Your task to perform on an android device: Show me productivity apps on the Play Store Image 0: 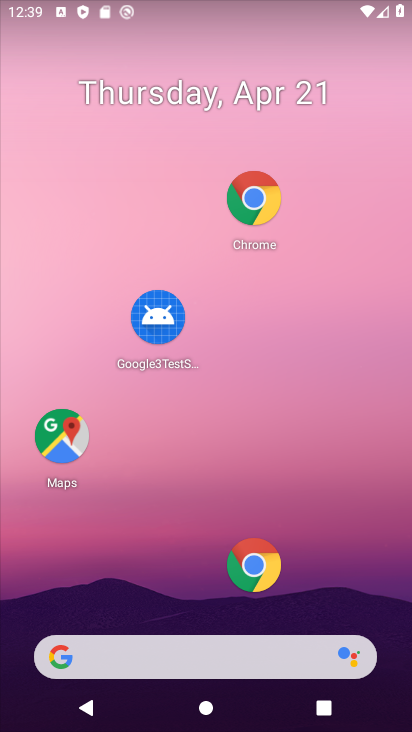
Step 0: drag from (191, 471) to (147, 93)
Your task to perform on an android device: Show me productivity apps on the Play Store Image 1: 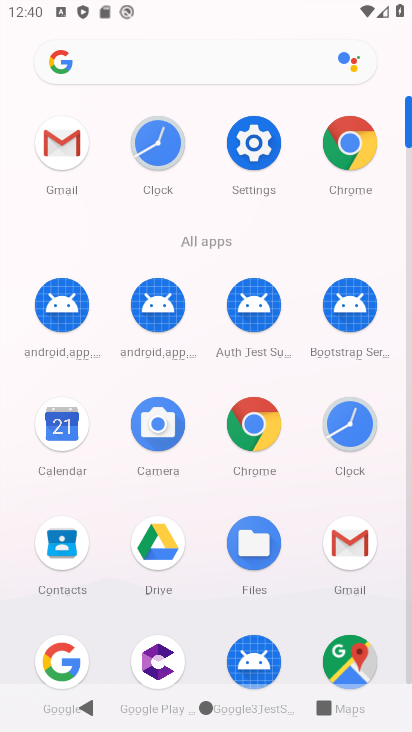
Step 1: drag from (202, 612) to (177, 338)
Your task to perform on an android device: Show me productivity apps on the Play Store Image 2: 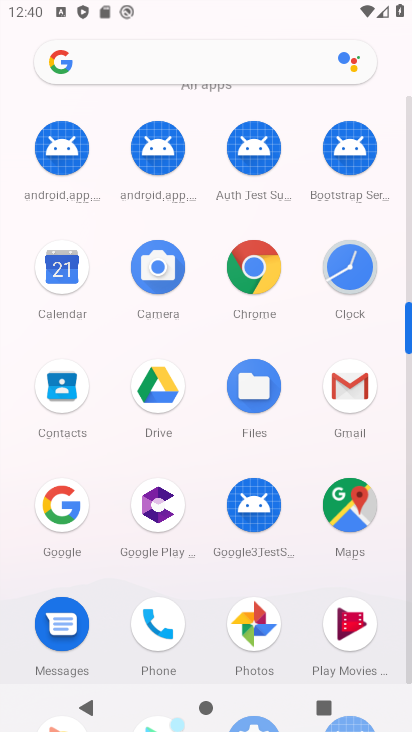
Step 2: drag from (186, 586) to (169, 327)
Your task to perform on an android device: Show me productivity apps on the Play Store Image 3: 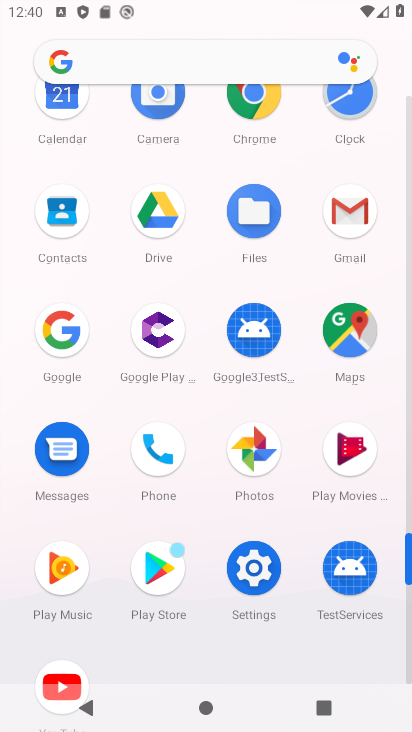
Step 3: click (171, 561)
Your task to perform on an android device: Show me productivity apps on the Play Store Image 4: 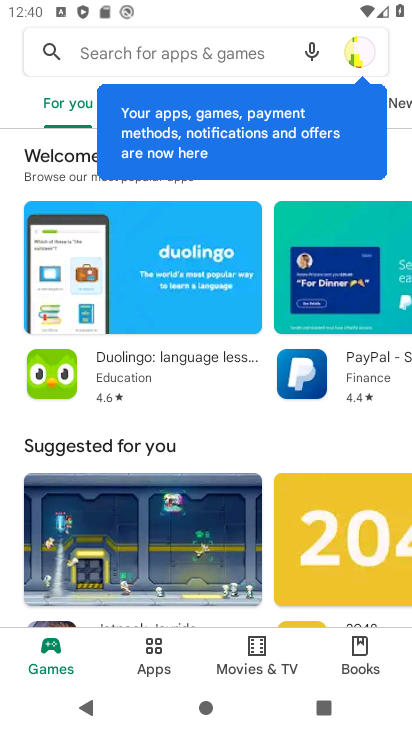
Step 4: click (152, 53)
Your task to perform on an android device: Show me productivity apps on the Play Store Image 5: 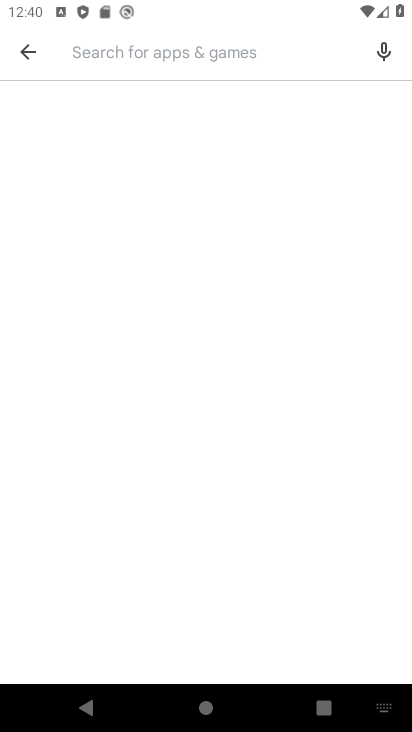
Step 5: type "productivity apps"
Your task to perform on an android device: Show me productivity apps on the Play Store Image 6: 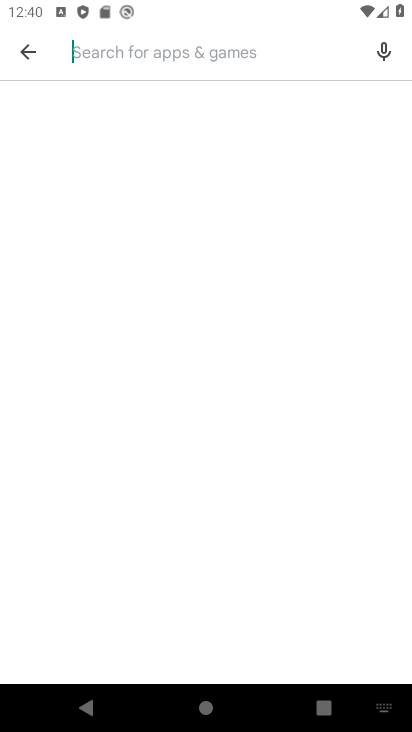
Step 6: click (137, 63)
Your task to perform on an android device: Show me productivity apps on the Play Store Image 7: 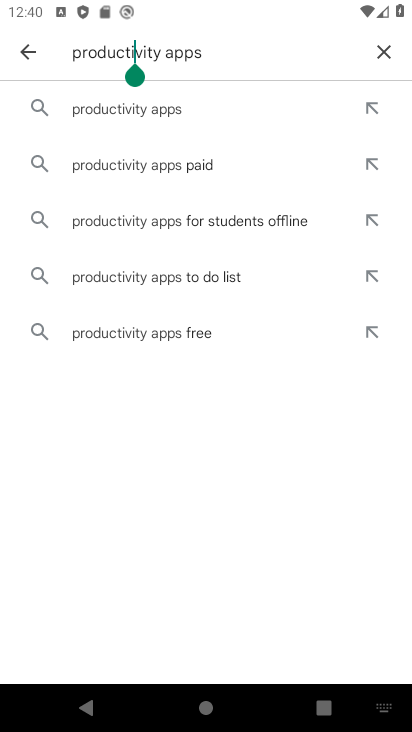
Step 7: click (222, 111)
Your task to perform on an android device: Show me productivity apps on the Play Store Image 8: 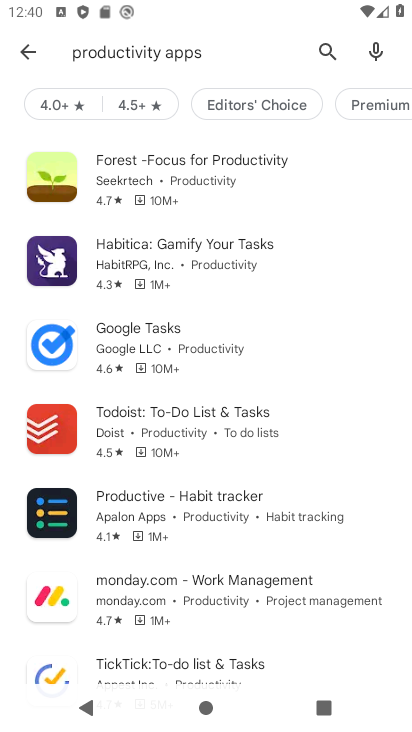
Step 8: task complete